Your task to perform on an android device: What is the recent news? Image 0: 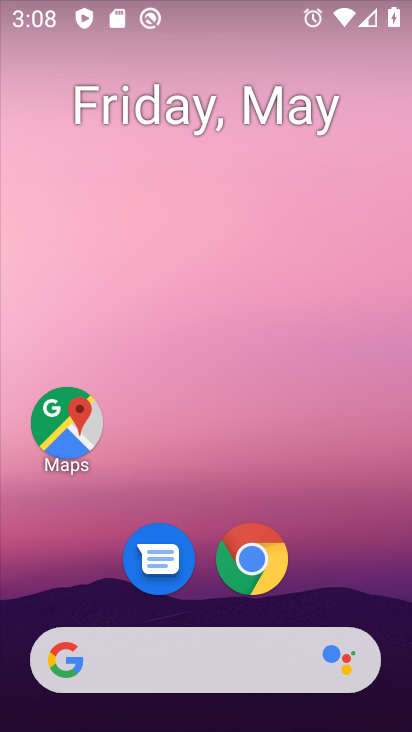
Step 0: click (274, 663)
Your task to perform on an android device: What is the recent news? Image 1: 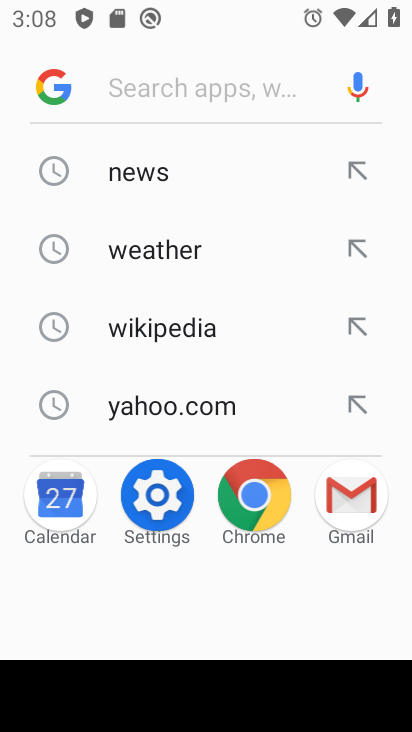
Step 1: click (170, 182)
Your task to perform on an android device: What is the recent news? Image 2: 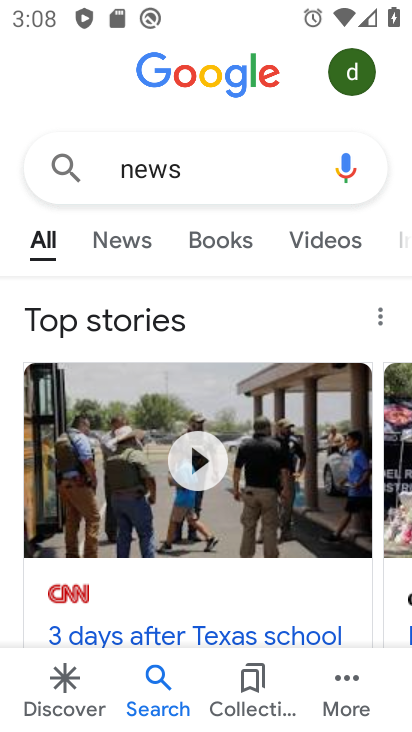
Step 2: task complete